Your task to perform on an android device: Open eBay Image 0: 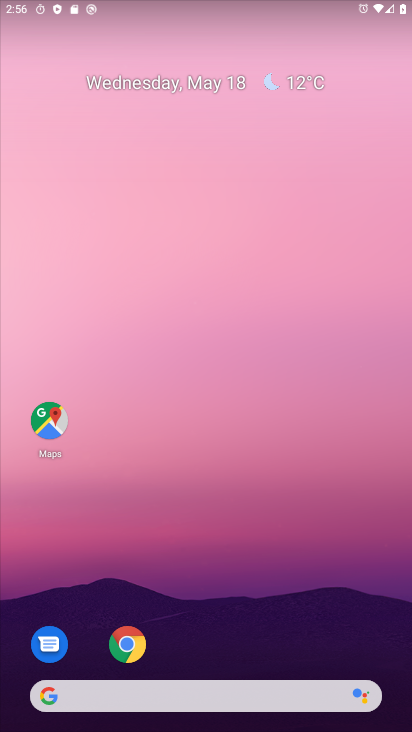
Step 0: click (133, 641)
Your task to perform on an android device: Open eBay Image 1: 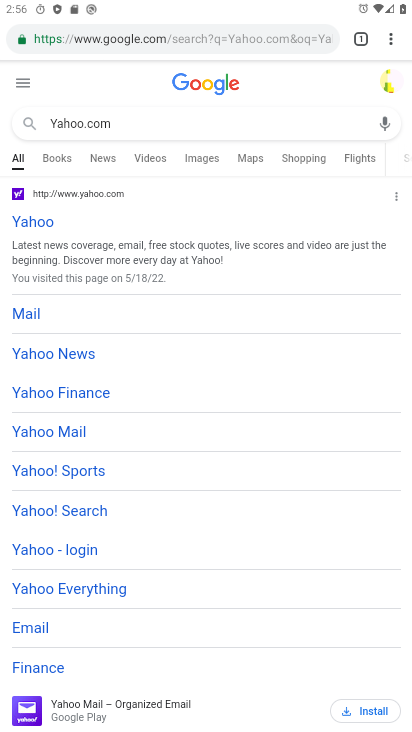
Step 1: click (333, 37)
Your task to perform on an android device: Open eBay Image 2: 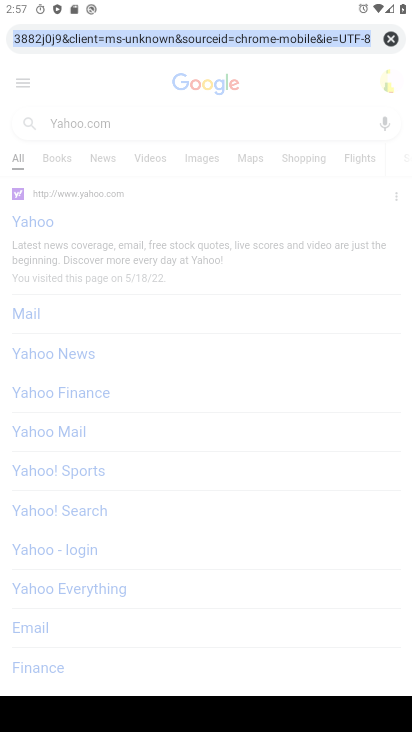
Step 2: click (384, 39)
Your task to perform on an android device: Open eBay Image 3: 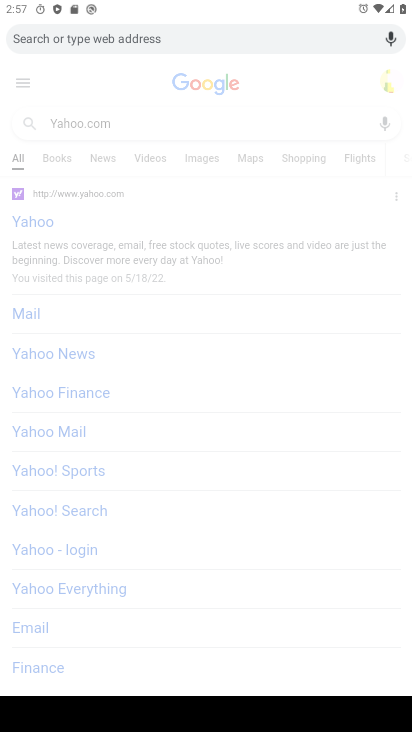
Step 3: type " eBay"
Your task to perform on an android device: Open eBay Image 4: 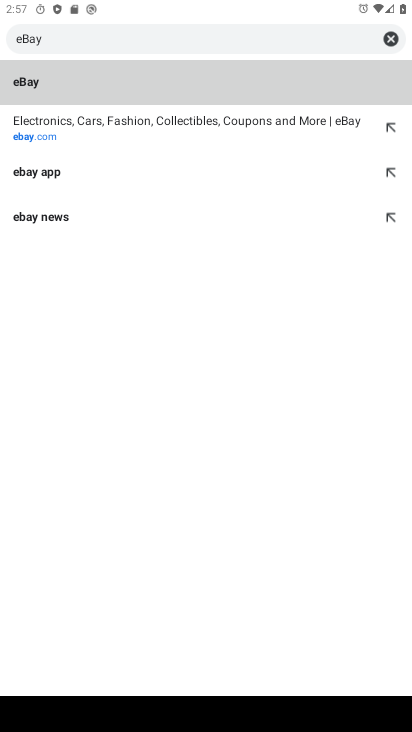
Step 4: click (127, 86)
Your task to perform on an android device: Open eBay Image 5: 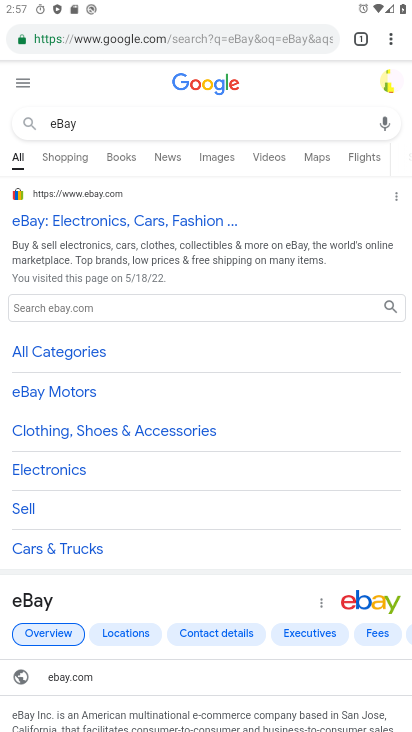
Step 5: task complete